Your task to perform on an android device: Clear the shopping cart on ebay. Add "razer kraken" to the cart on ebay, then select checkout. Image 0: 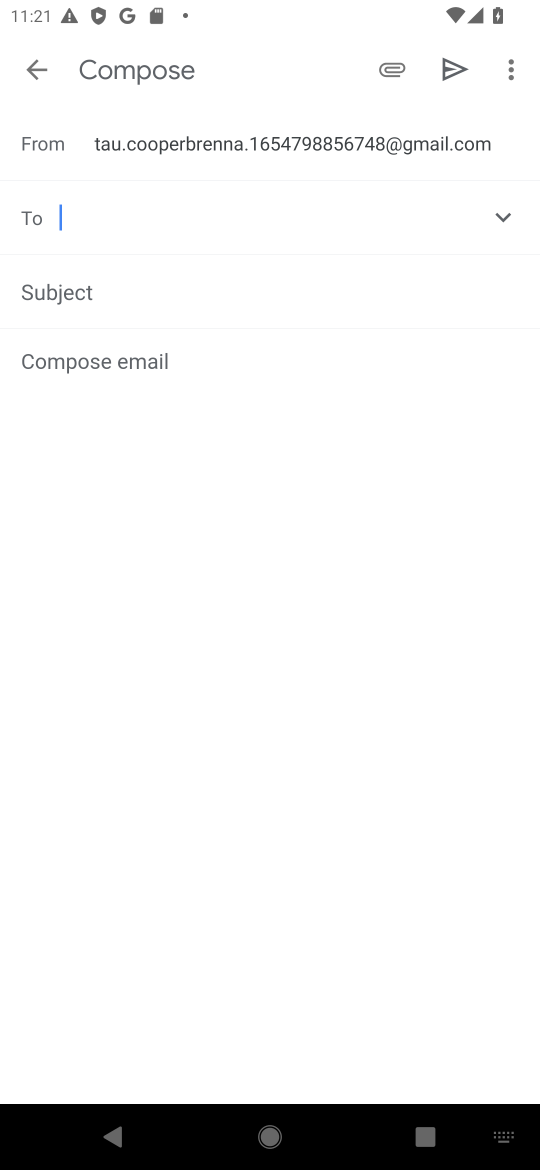
Step 0: press home button
Your task to perform on an android device: Clear the shopping cart on ebay. Add "razer kraken" to the cart on ebay, then select checkout. Image 1: 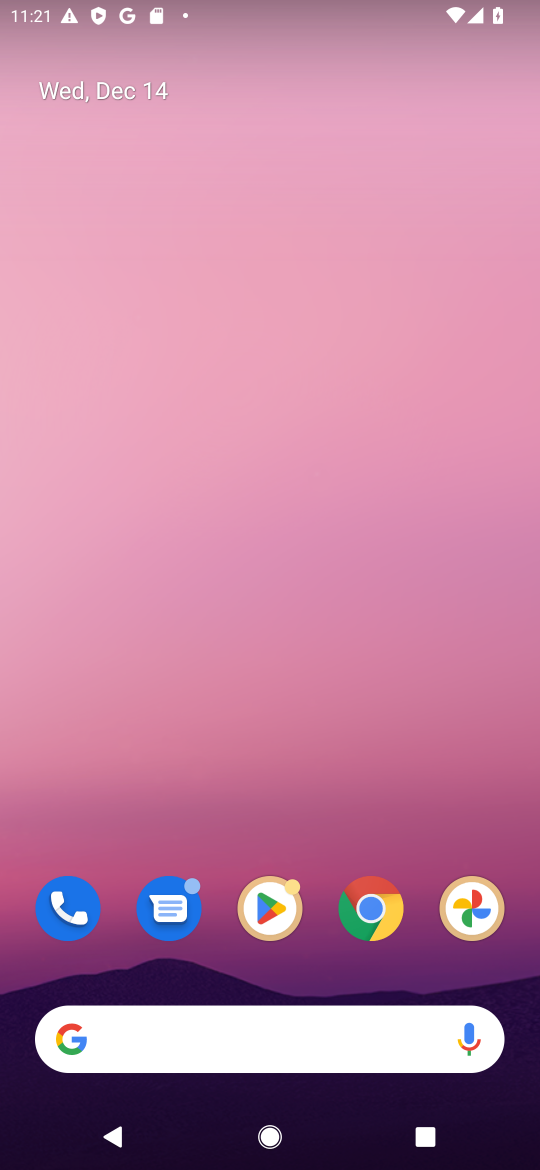
Step 1: click (368, 940)
Your task to perform on an android device: Clear the shopping cart on ebay. Add "razer kraken" to the cart on ebay, then select checkout. Image 2: 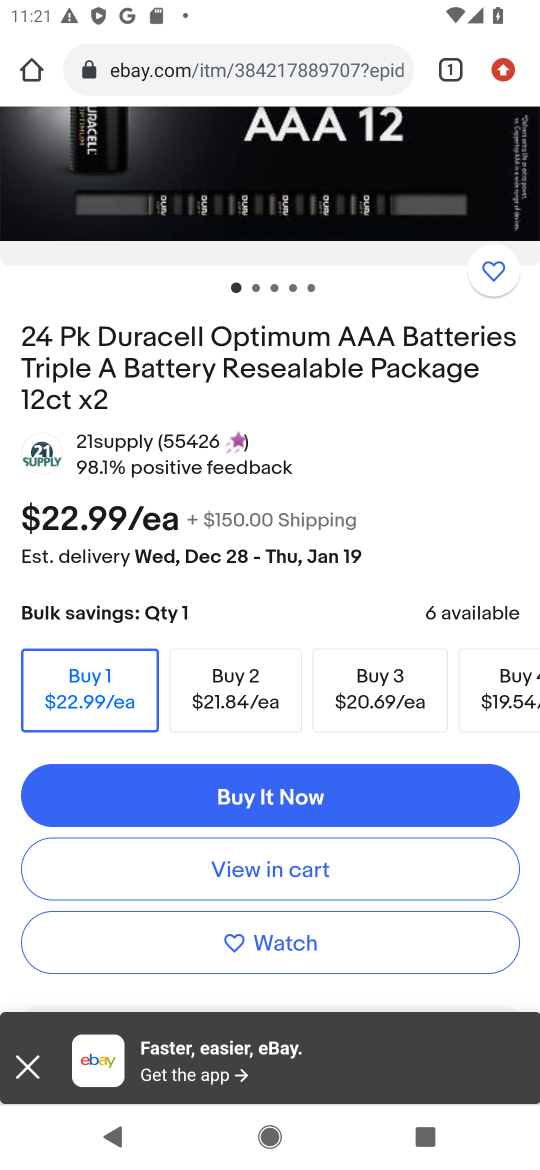
Step 2: drag from (294, 208) to (274, 1146)
Your task to perform on an android device: Clear the shopping cart on ebay. Add "razer kraken" to the cart on ebay, then select checkout. Image 3: 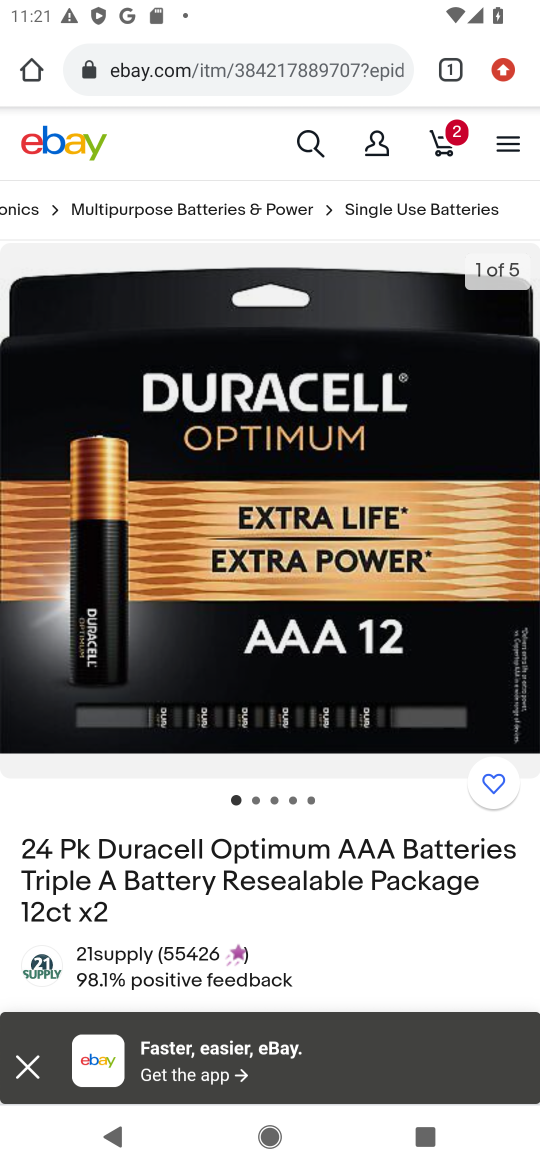
Step 3: click (316, 149)
Your task to perform on an android device: Clear the shopping cart on ebay. Add "razer kraken" to the cart on ebay, then select checkout. Image 4: 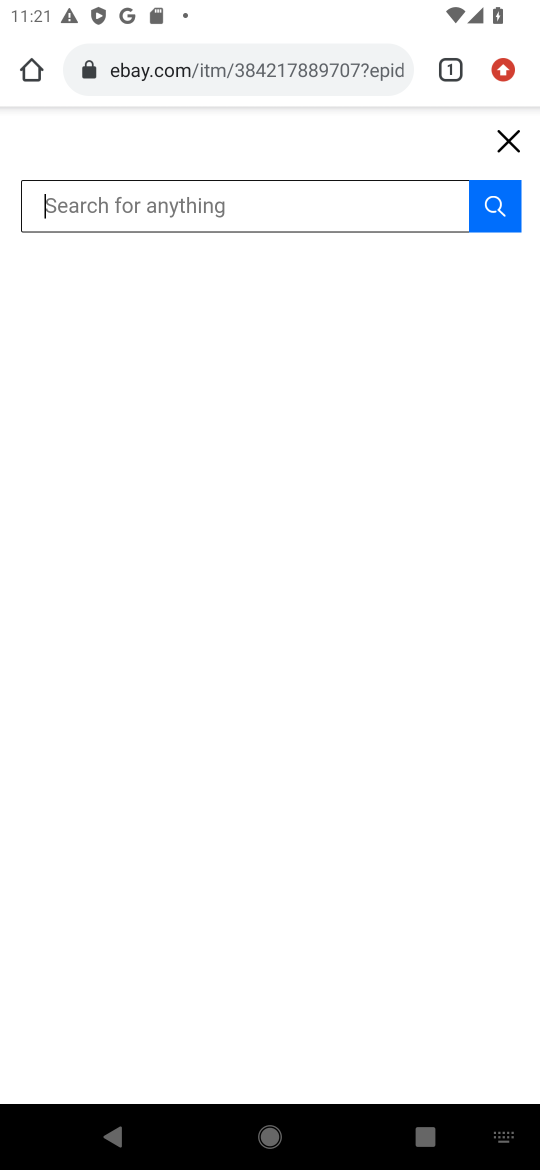
Step 4: type "razer karken"
Your task to perform on an android device: Clear the shopping cart on ebay. Add "razer kraken" to the cart on ebay, then select checkout. Image 5: 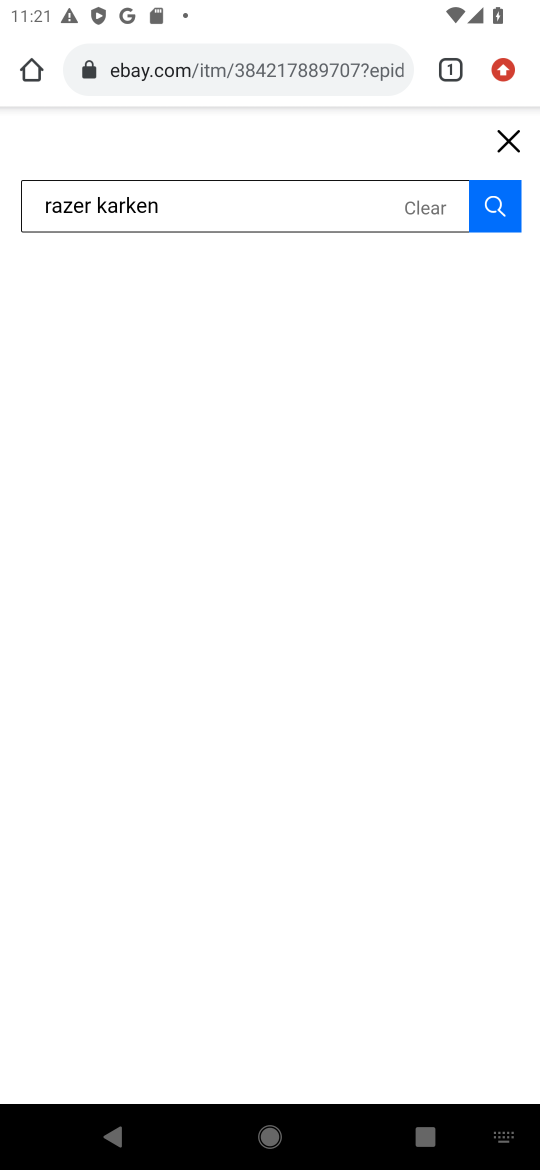
Step 5: click (481, 224)
Your task to perform on an android device: Clear the shopping cart on ebay. Add "razer kraken" to the cart on ebay, then select checkout. Image 6: 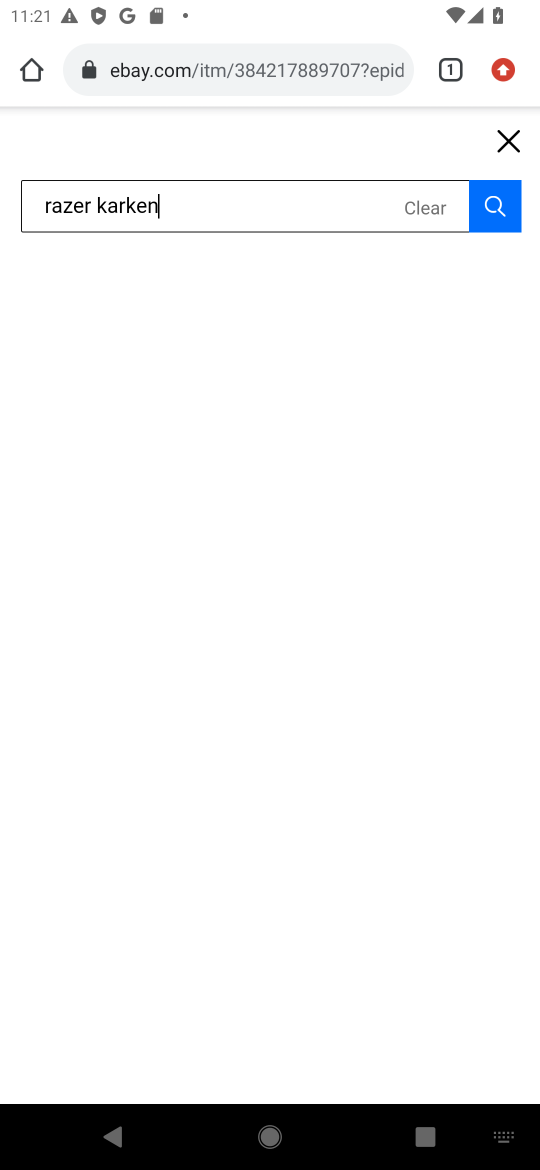
Step 6: click (481, 224)
Your task to perform on an android device: Clear the shopping cart on ebay. Add "razer kraken" to the cart on ebay, then select checkout. Image 7: 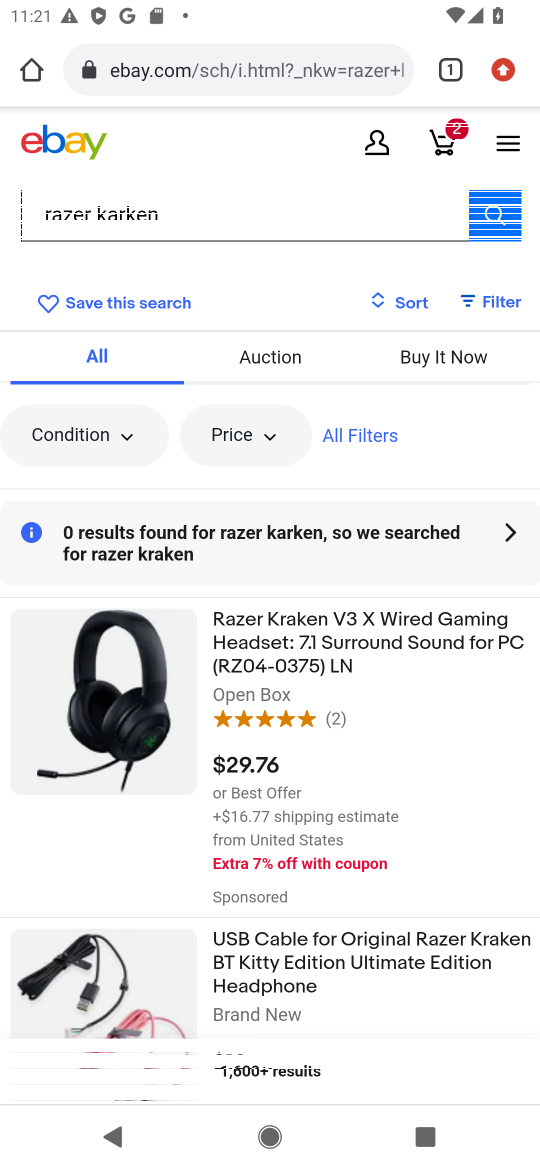
Step 7: click (269, 631)
Your task to perform on an android device: Clear the shopping cart on ebay. Add "razer kraken" to the cart on ebay, then select checkout. Image 8: 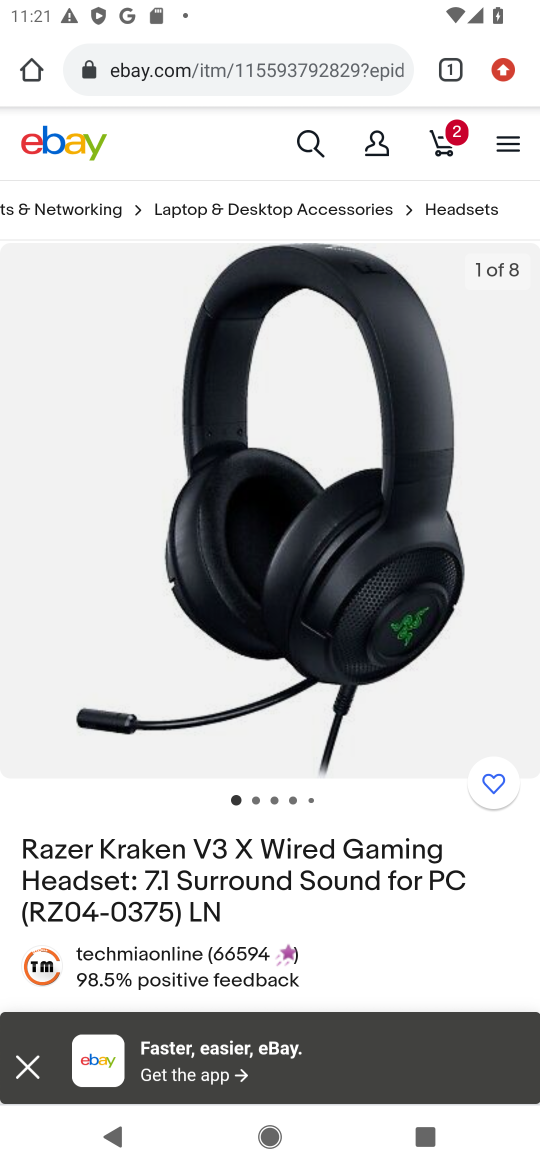
Step 8: click (379, 913)
Your task to perform on an android device: Clear the shopping cart on ebay. Add "razer kraken" to the cart on ebay, then select checkout. Image 9: 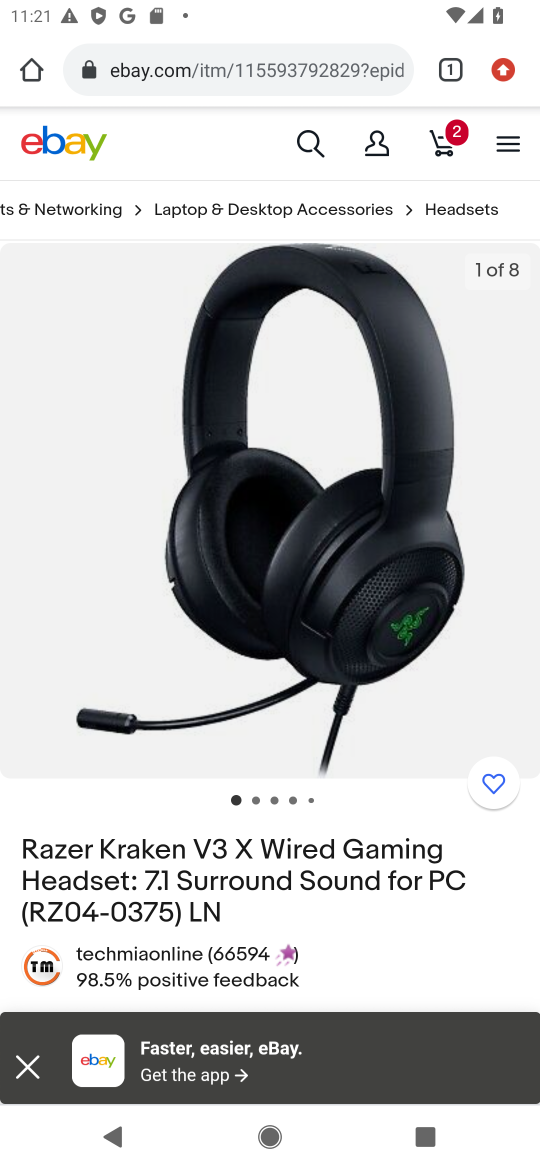
Step 9: click (33, 1061)
Your task to perform on an android device: Clear the shopping cart on ebay. Add "razer kraken" to the cart on ebay, then select checkout. Image 10: 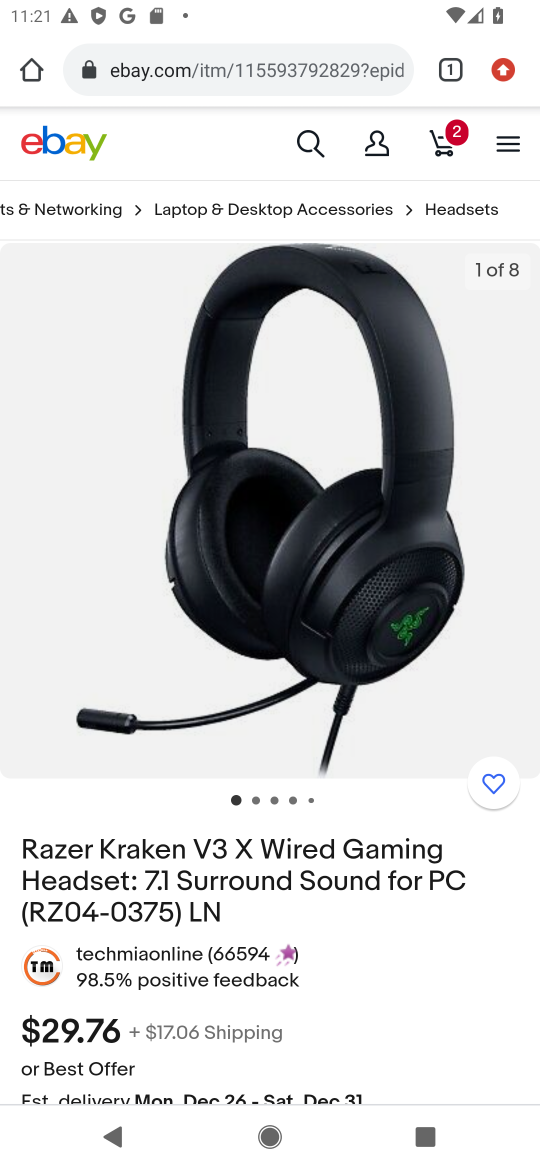
Step 10: drag from (369, 1020) to (347, 586)
Your task to perform on an android device: Clear the shopping cart on ebay. Add "razer kraken" to the cart on ebay, then select checkout. Image 11: 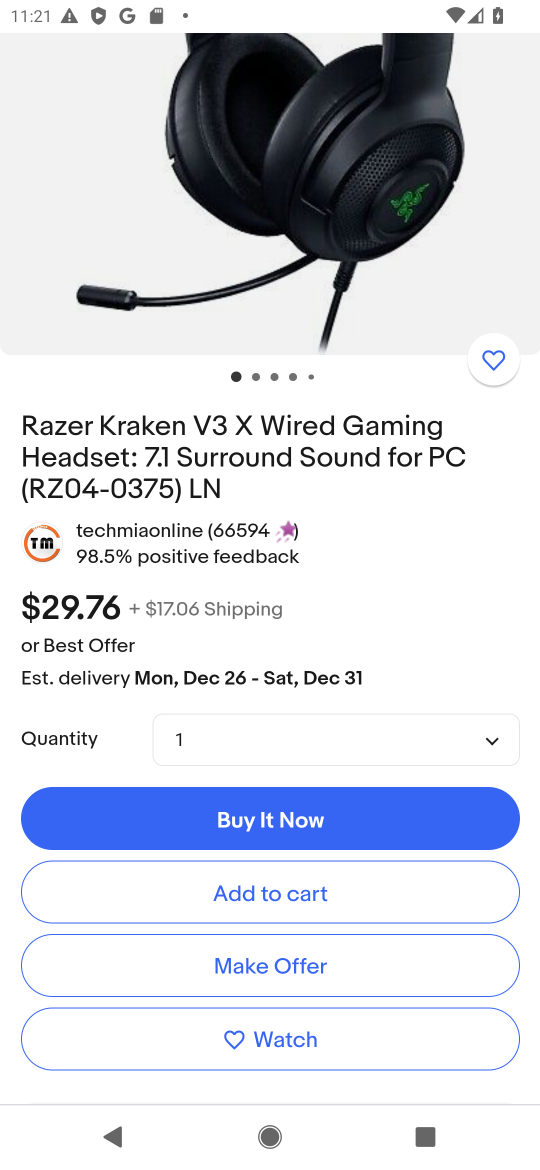
Step 11: click (358, 884)
Your task to perform on an android device: Clear the shopping cart on ebay. Add "razer kraken" to the cart on ebay, then select checkout. Image 12: 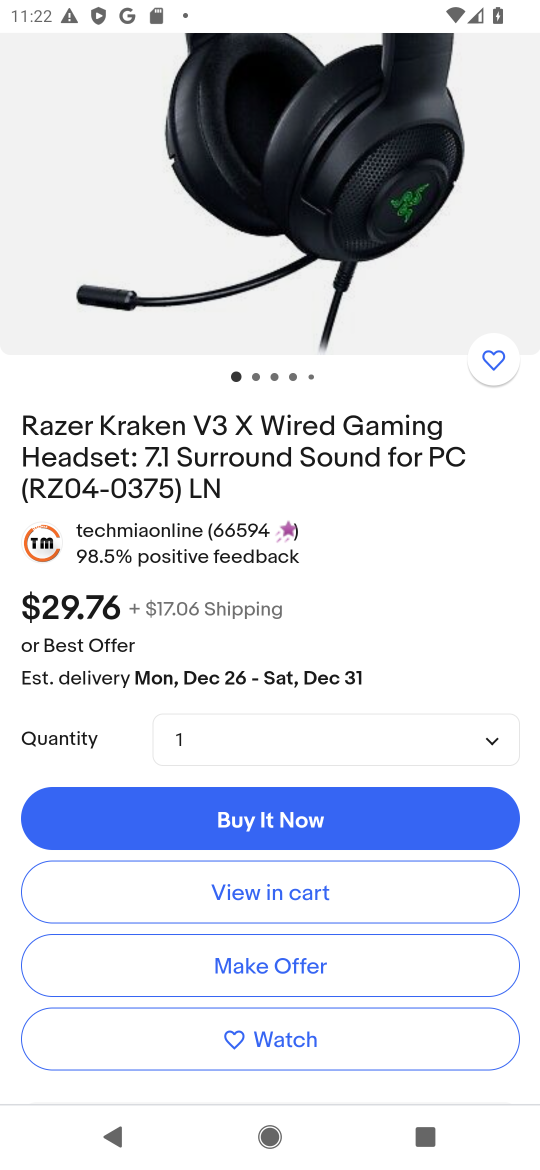
Step 12: task complete